Your task to perform on an android device: Go to internet settings Image 0: 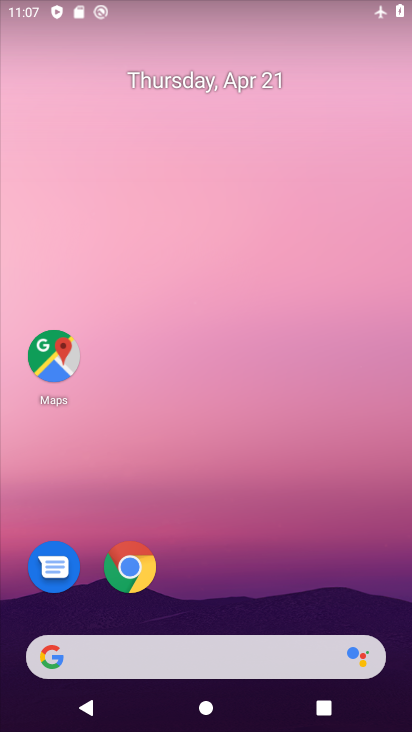
Step 0: drag from (184, 609) to (212, 150)
Your task to perform on an android device: Go to internet settings Image 1: 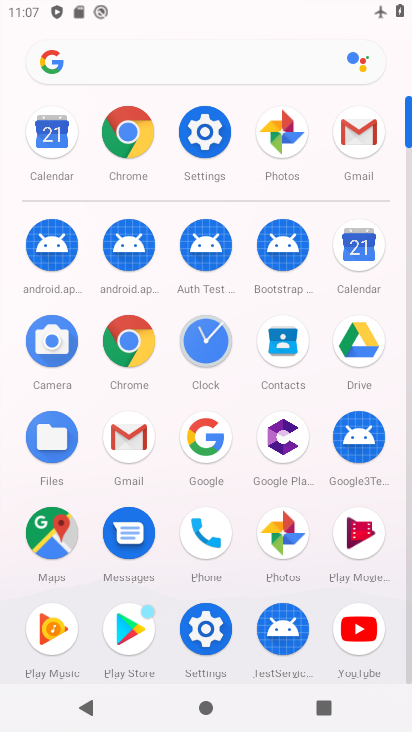
Step 1: click (192, 147)
Your task to perform on an android device: Go to internet settings Image 2: 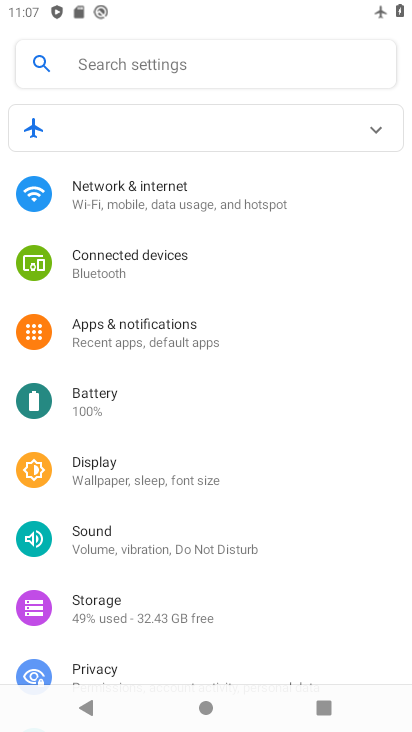
Step 2: click (149, 216)
Your task to perform on an android device: Go to internet settings Image 3: 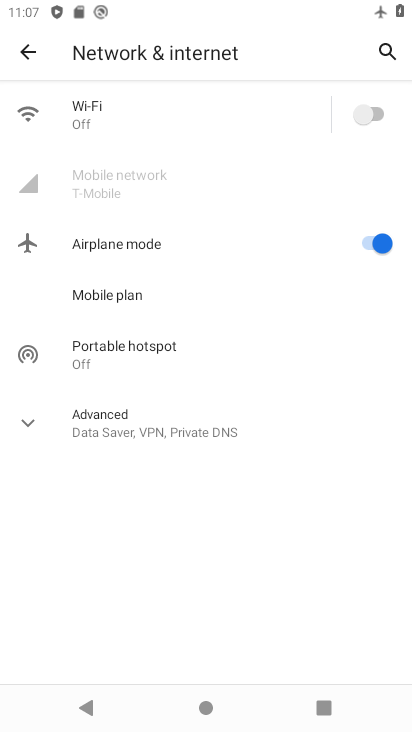
Step 3: task complete